Your task to perform on an android device: Search for the new iphone 13 pro on Etsy. Image 0: 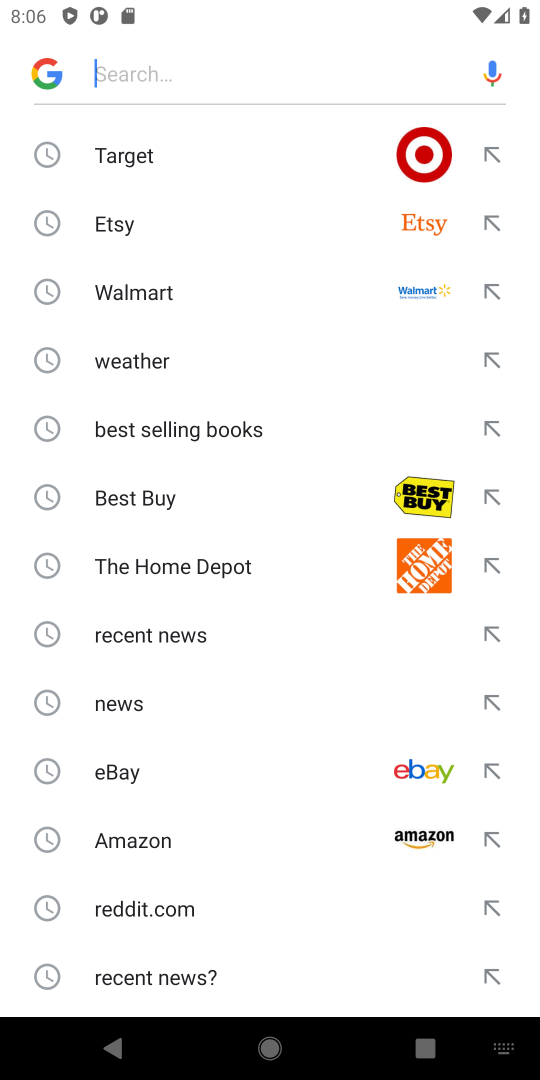
Step 0: press home button
Your task to perform on an android device: Search for the new iphone 13 pro on Etsy. Image 1: 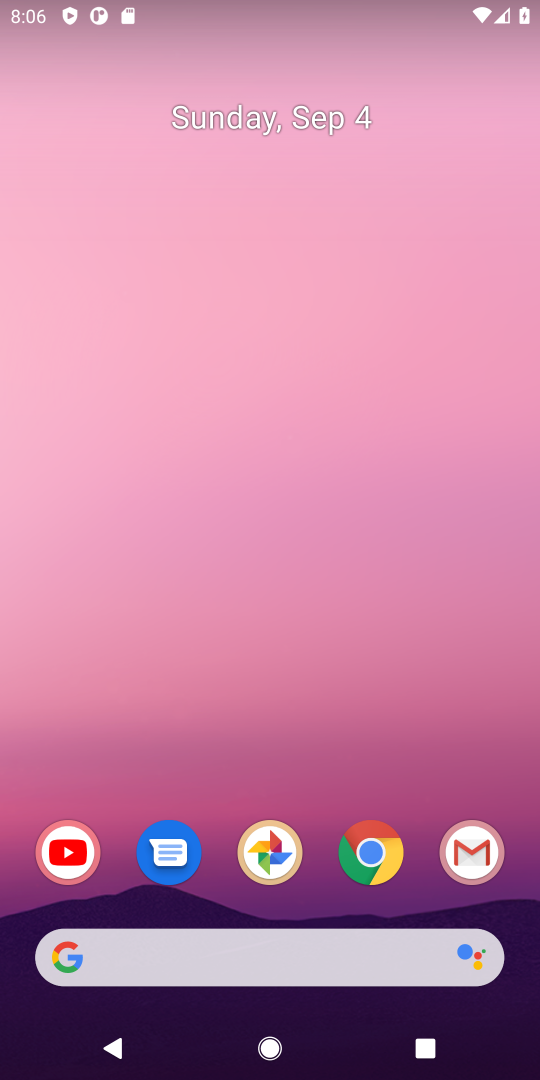
Step 1: drag from (453, 814) to (242, 110)
Your task to perform on an android device: Search for the new iphone 13 pro on Etsy. Image 2: 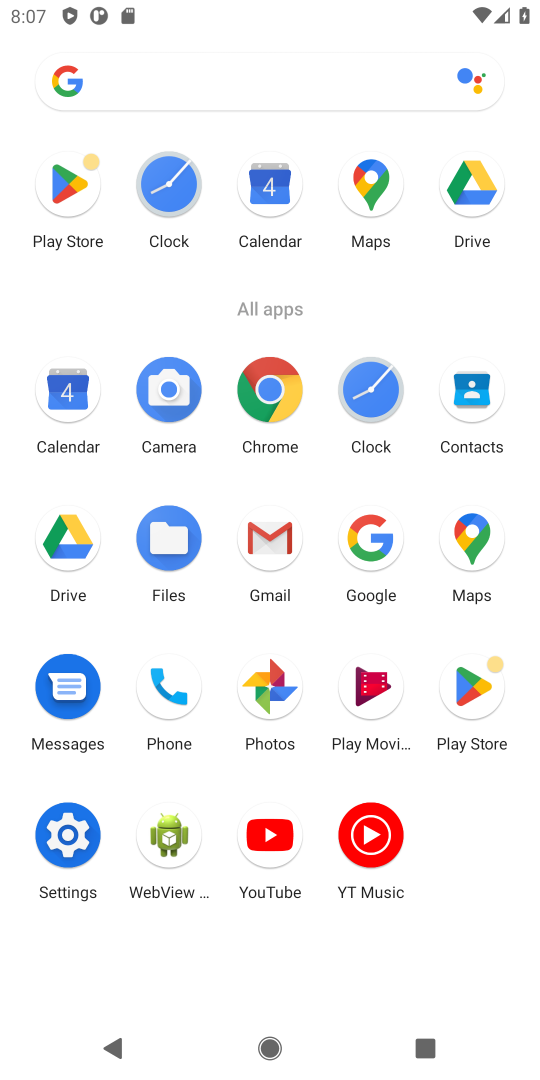
Step 2: click (378, 548)
Your task to perform on an android device: Search for the new iphone 13 pro on Etsy. Image 3: 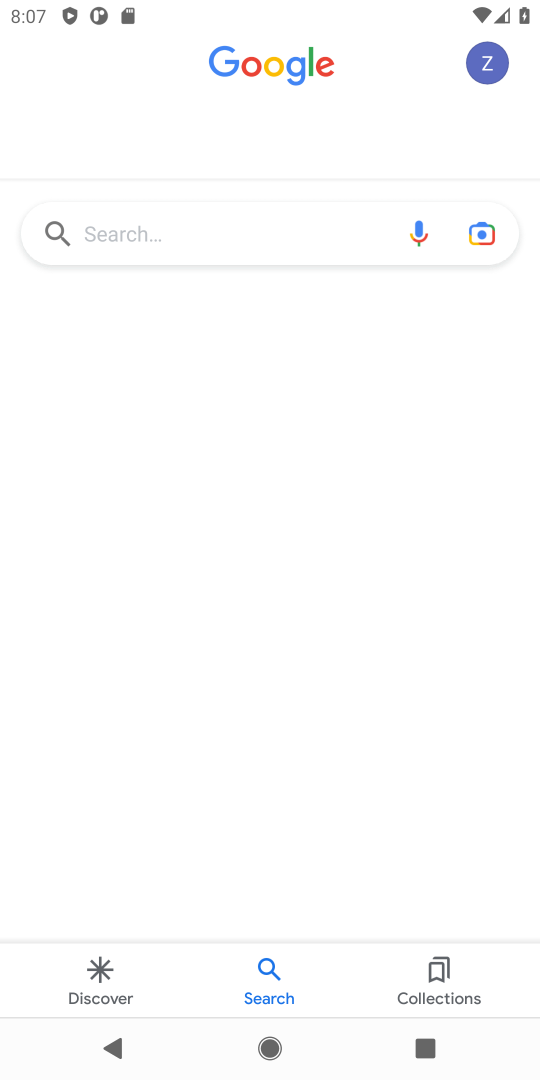
Step 3: click (195, 242)
Your task to perform on an android device: Search for the new iphone 13 pro on Etsy. Image 4: 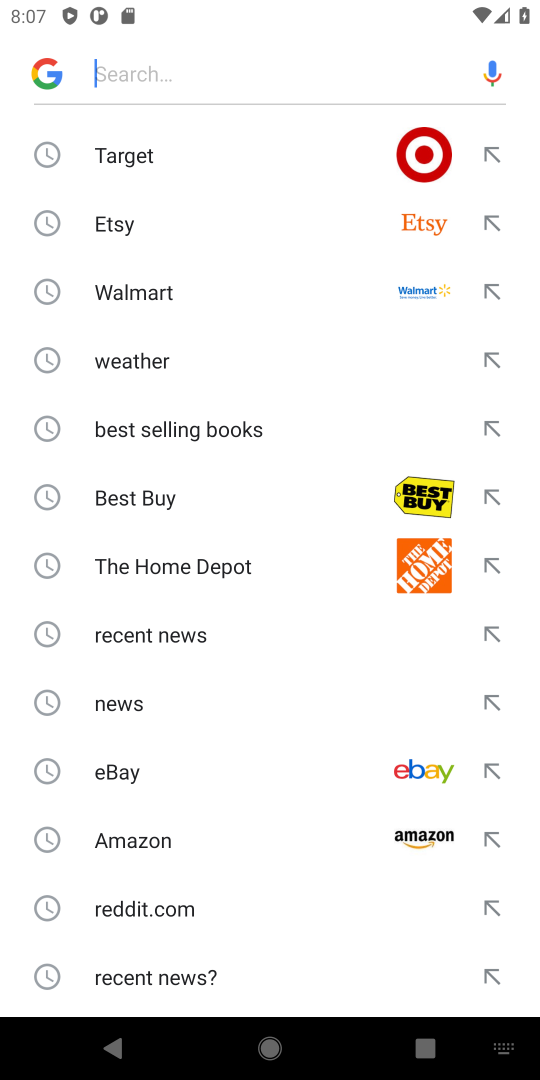
Step 4: click (137, 231)
Your task to perform on an android device: Search for the new iphone 13 pro on Etsy. Image 5: 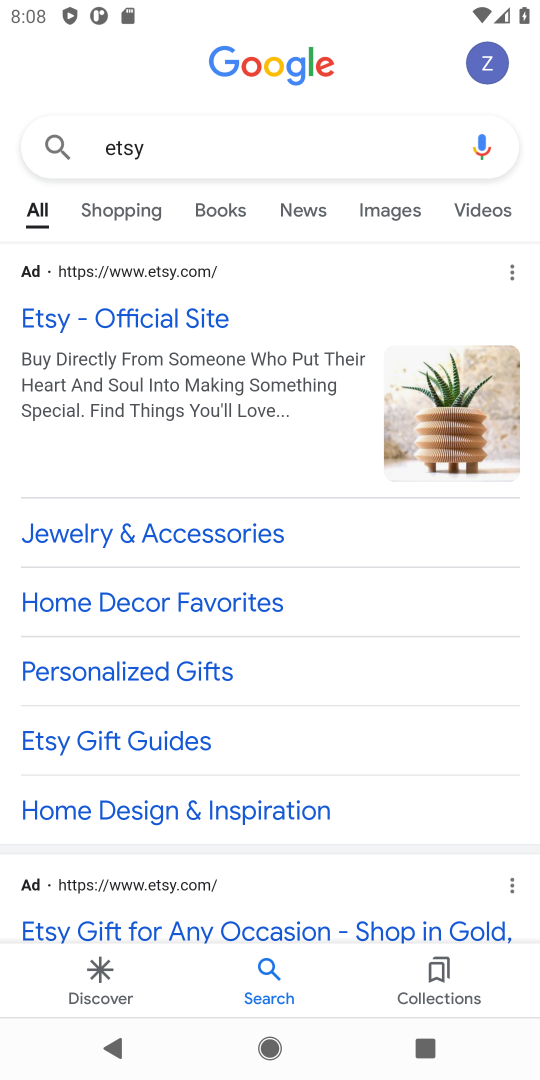
Step 5: click (182, 320)
Your task to perform on an android device: Search for the new iphone 13 pro on Etsy. Image 6: 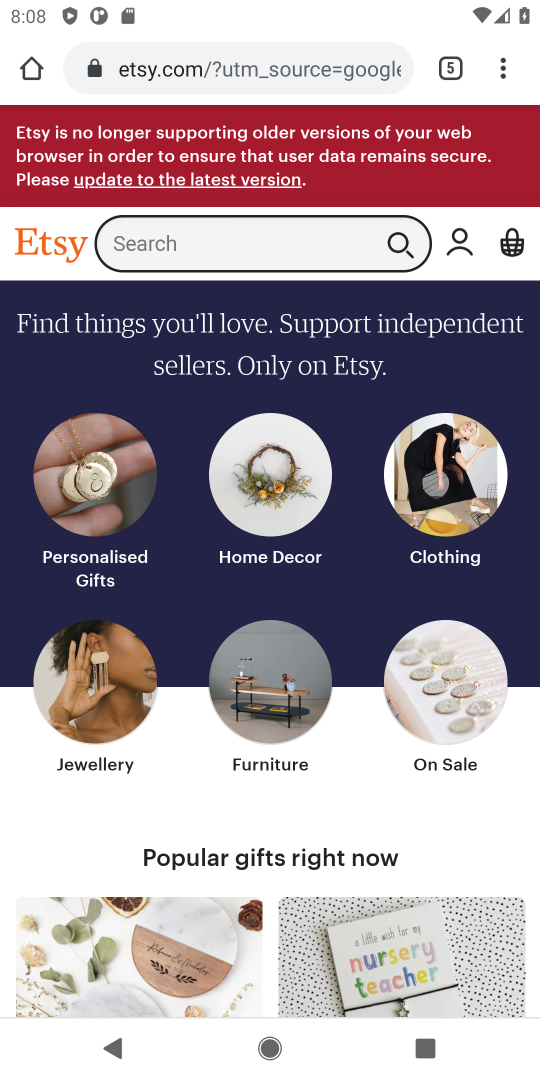
Step 6: click (245, 237)
Your task to perform on an android device: Search for the new iphone 13 pro on Etsy. Image 7: 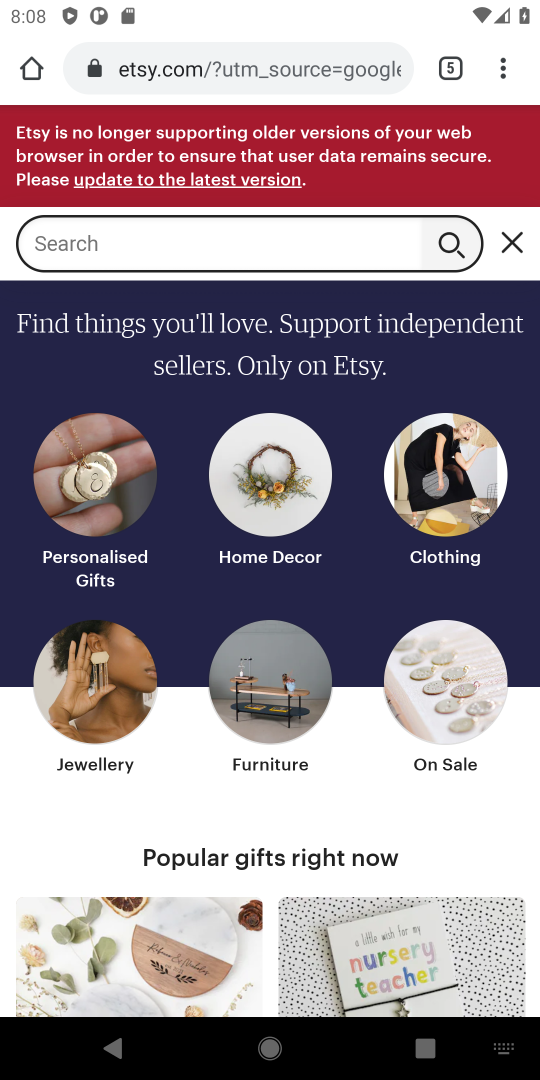
Step 7: type "new iphone 13"
Your task to perform on an android device: Search for the new iphone 13 pro on Etsy. Image 8: 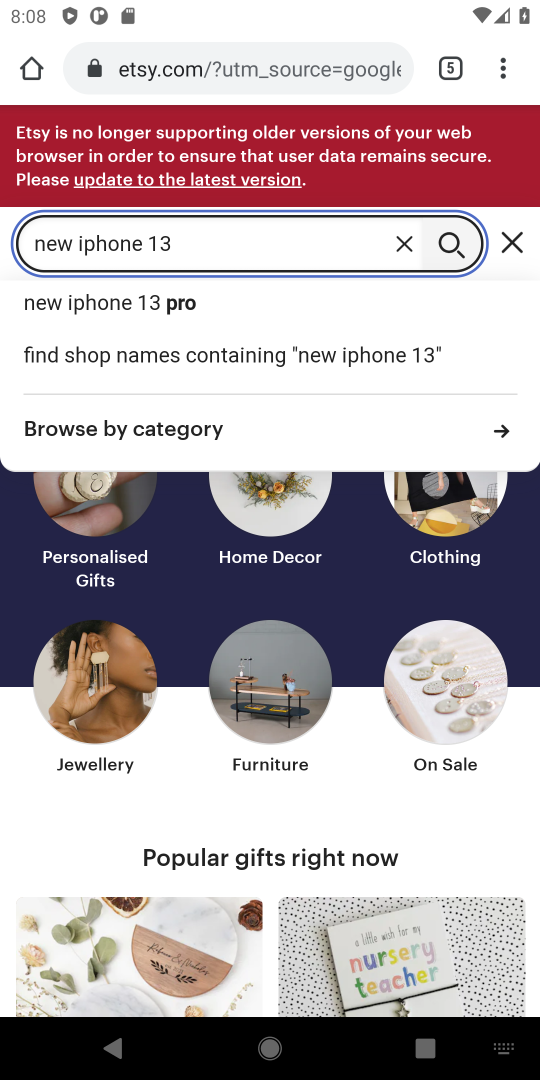
Step 8: click (448, 240)
Your task to perform on an android device: Search for the new iphone 13 pro on Etsy. Image 9: 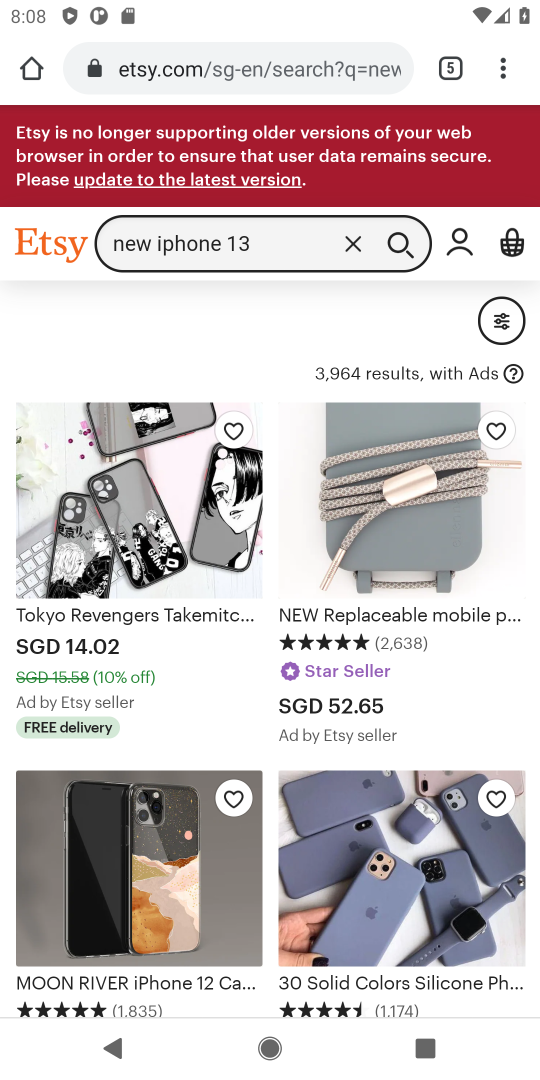
Step 9: task complete